Your task to perform on an android device: Open battery settings Image 0: 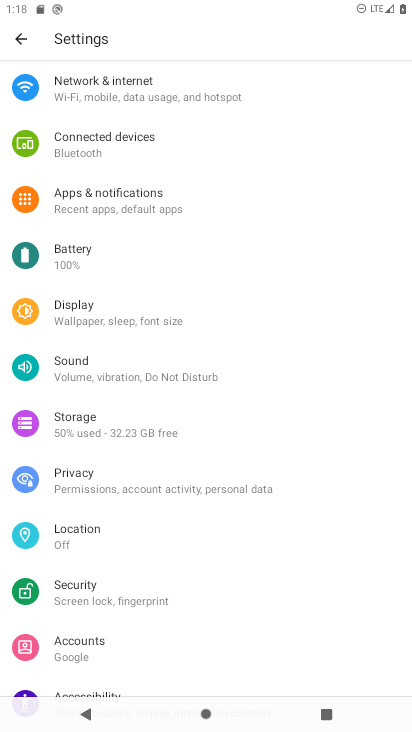
Step 0: click (128, 251)
Your task to perform on an android device: Open battery settings Image 1: 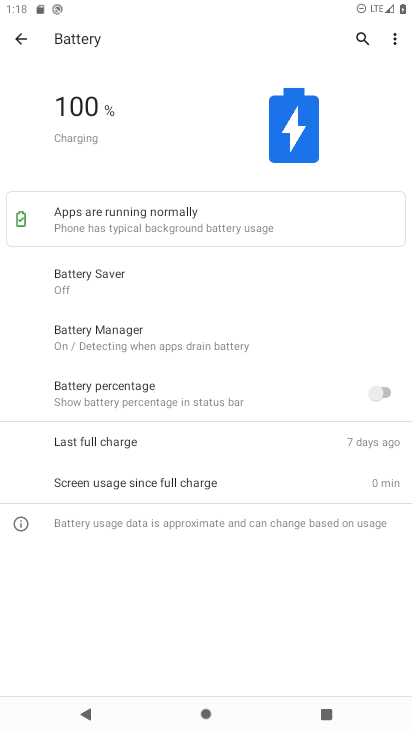
Step 1: task complete